Your task to perform on an android device: open chrome and create a bookmark for the current page Image 0: 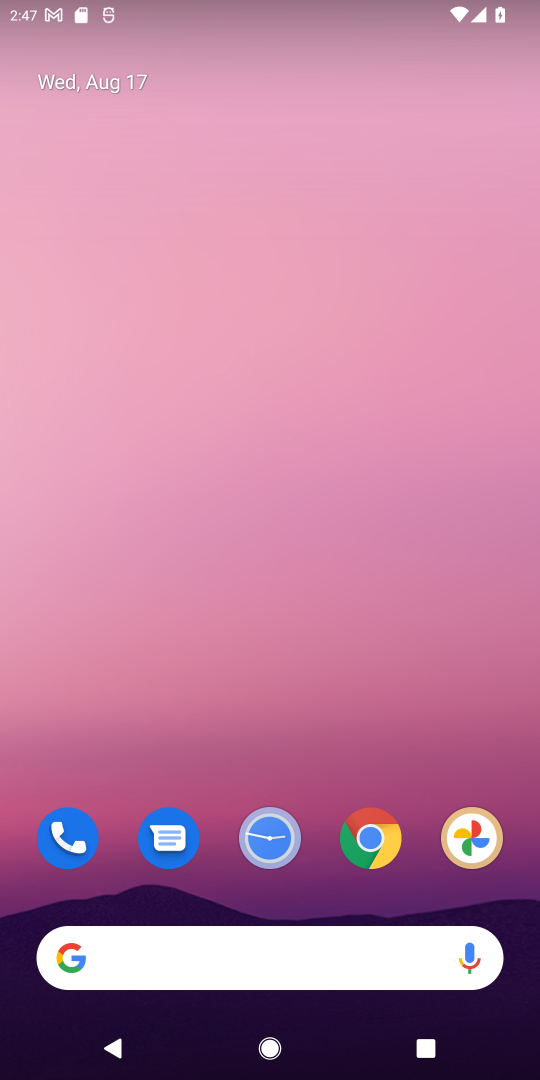
Step 0: click (357, 846)
Your task to perform on an android device: open chrome and create a bookmark for the current page Image 1: 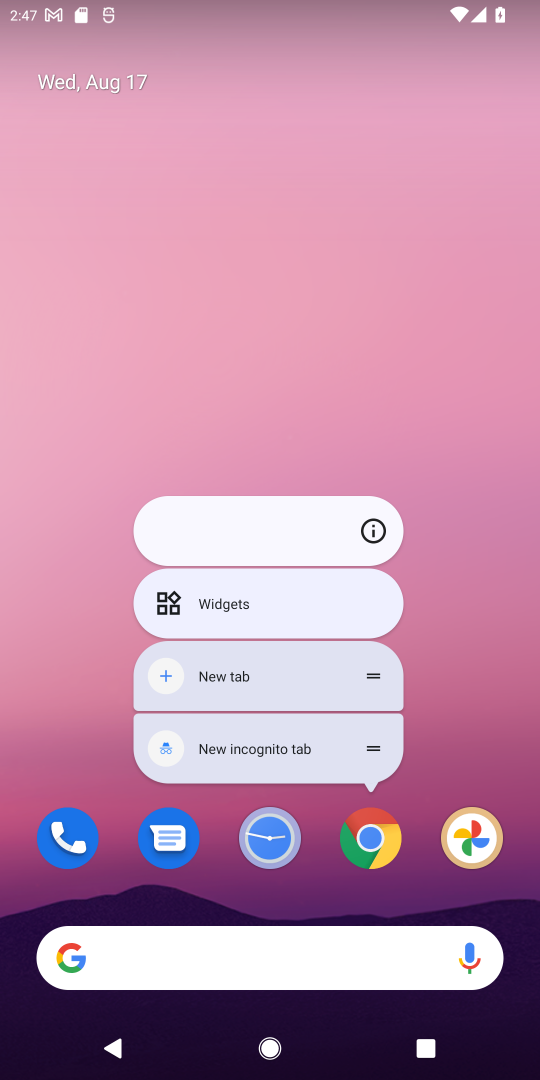
Step 1: click (395, 829)
Your task to perform on an android device: open chrome and create a bookmark for the current page Image 2: 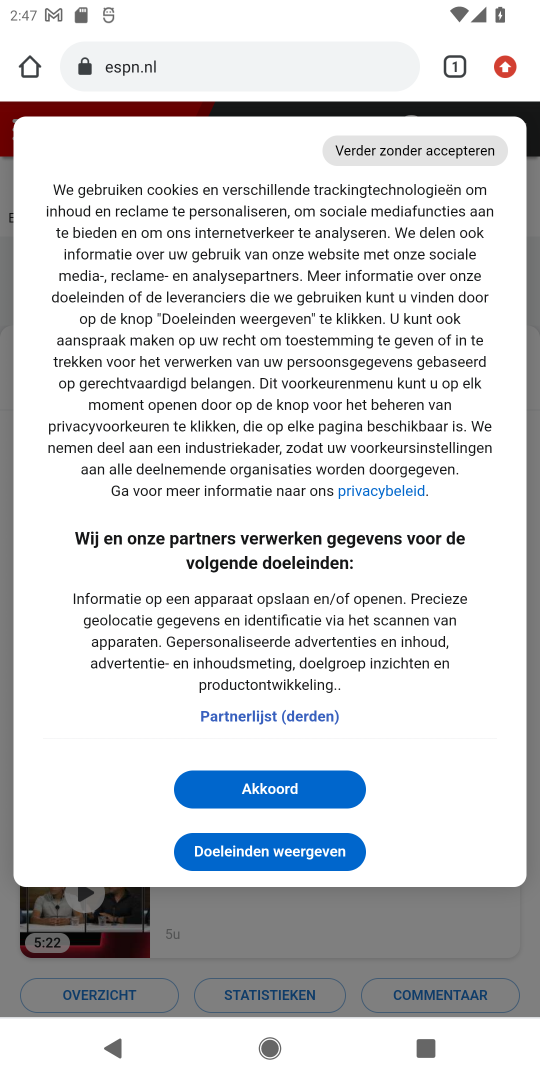
Step 2: click (499, 114)
Your task to perform on an android device: open chrome and create a bookmark for the current page Image 3: 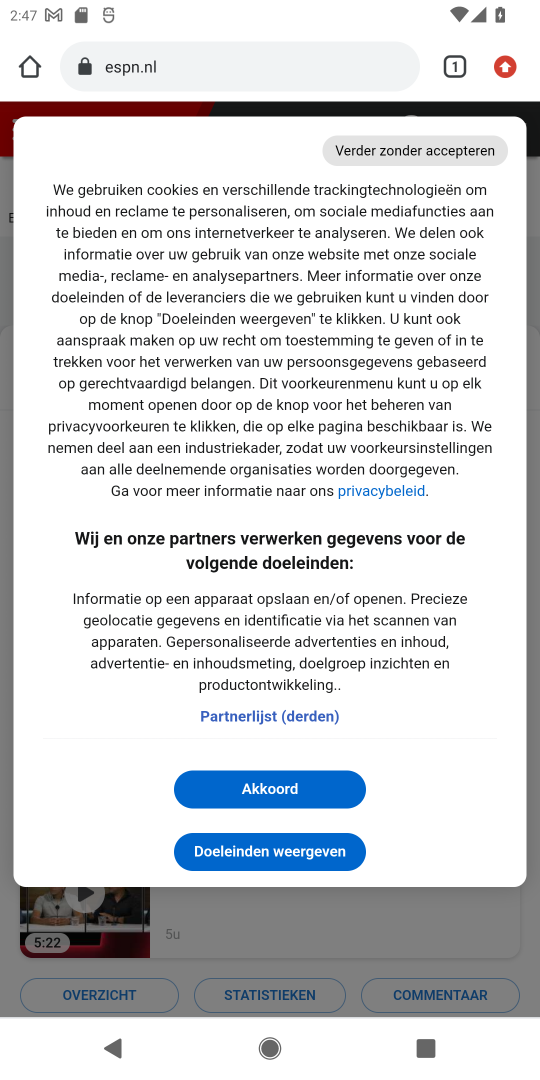
Step 3: click (507, 66)
Your task to perform on an android device: open chrome and create a bookmark for the current page Image 4: 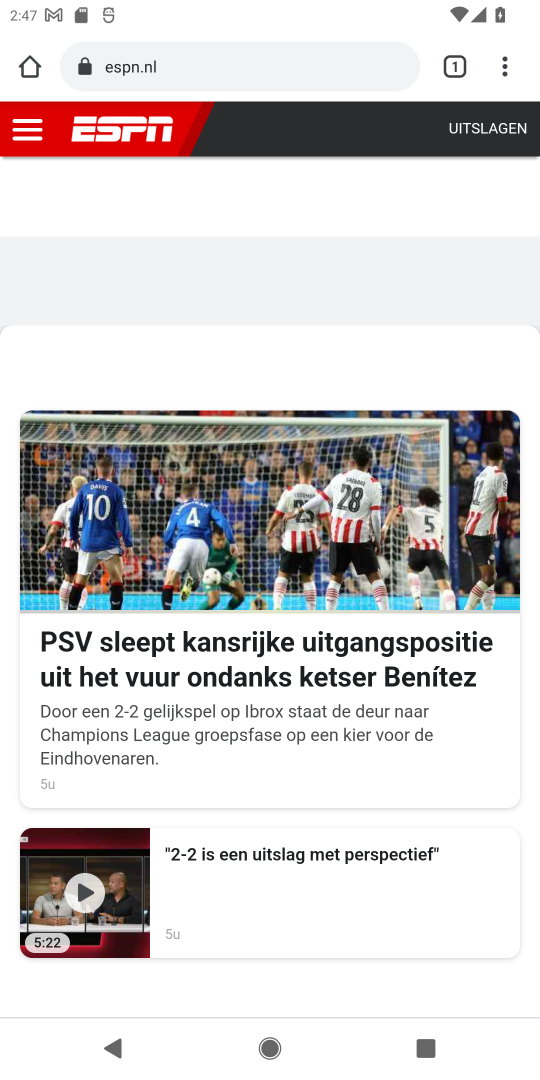
Step 4: click (504, 65)
Your task to perform on an android device: open chrome and create a bookmark for the current page Image 5: 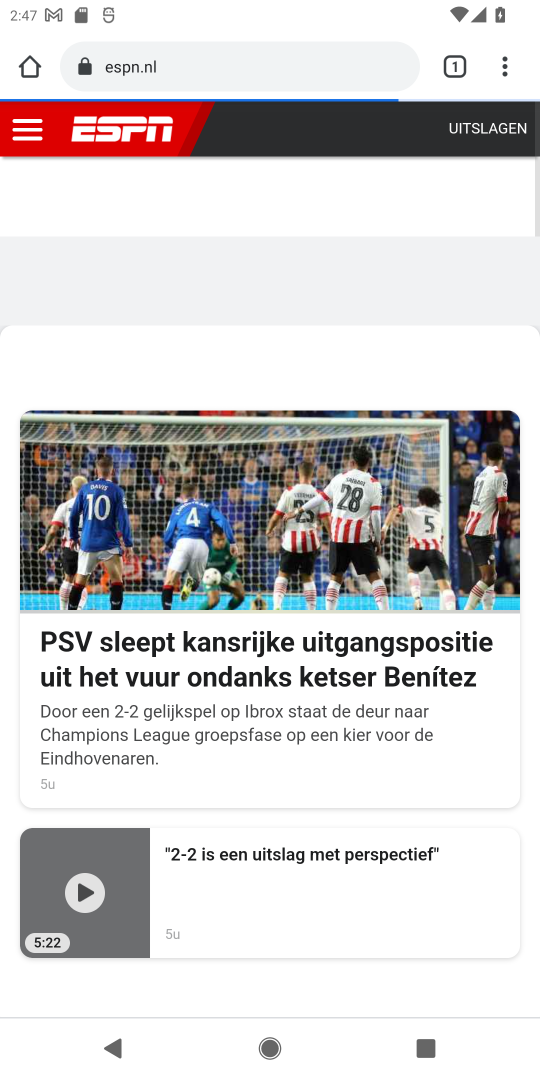
Step 5: click (502, 65)
Your task to perform on an android device: open chrome and create a bookmark for the current page Image 6: 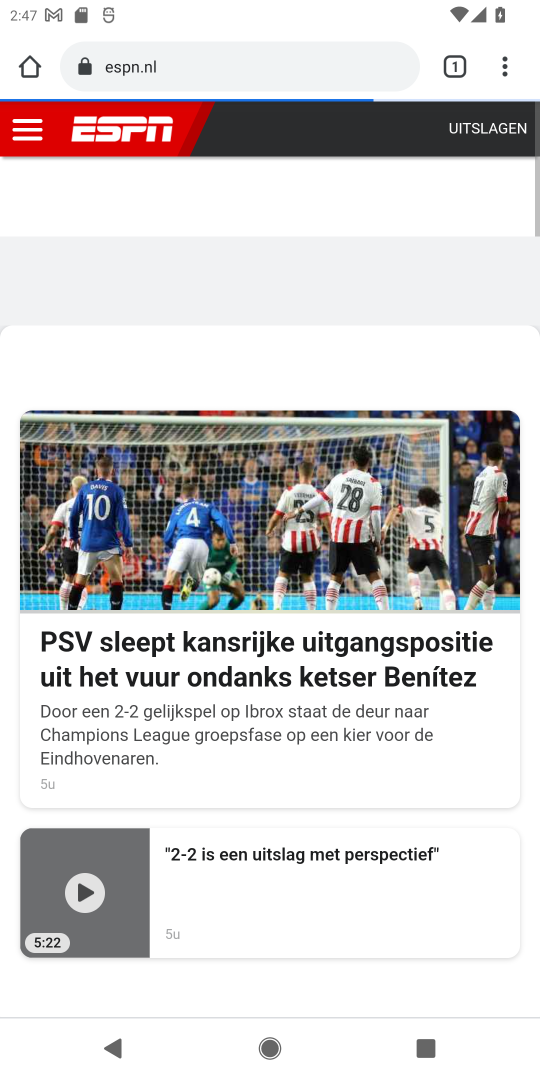
Step 6: click (499, 61)
Your task to perform on an android device: open chrome and create a bookmark for the current page Image 7: 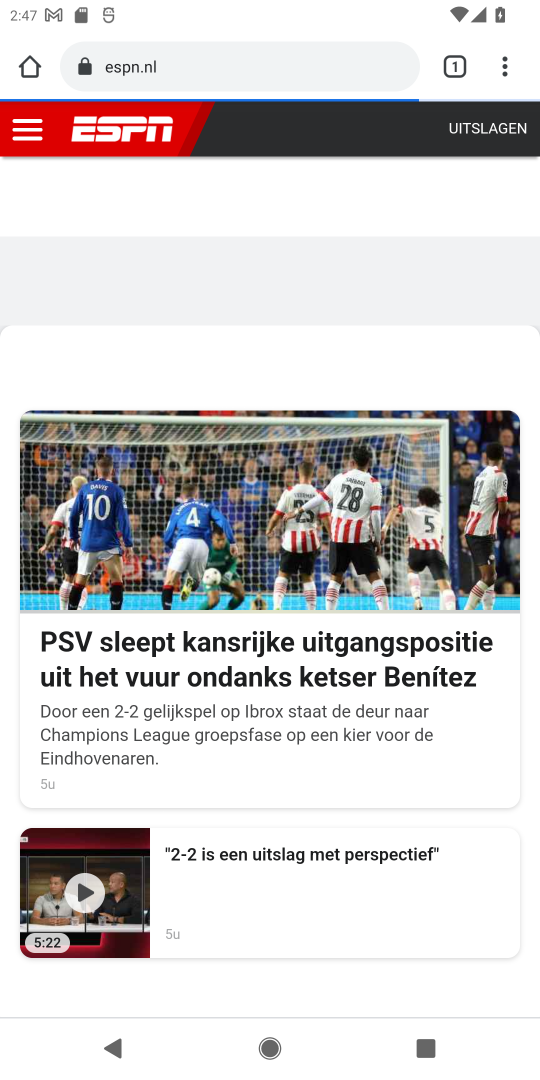
Step 7: click (499, 69)
Your task to perform on an android device: open chrome and create a bookmark for the current page Image 8: 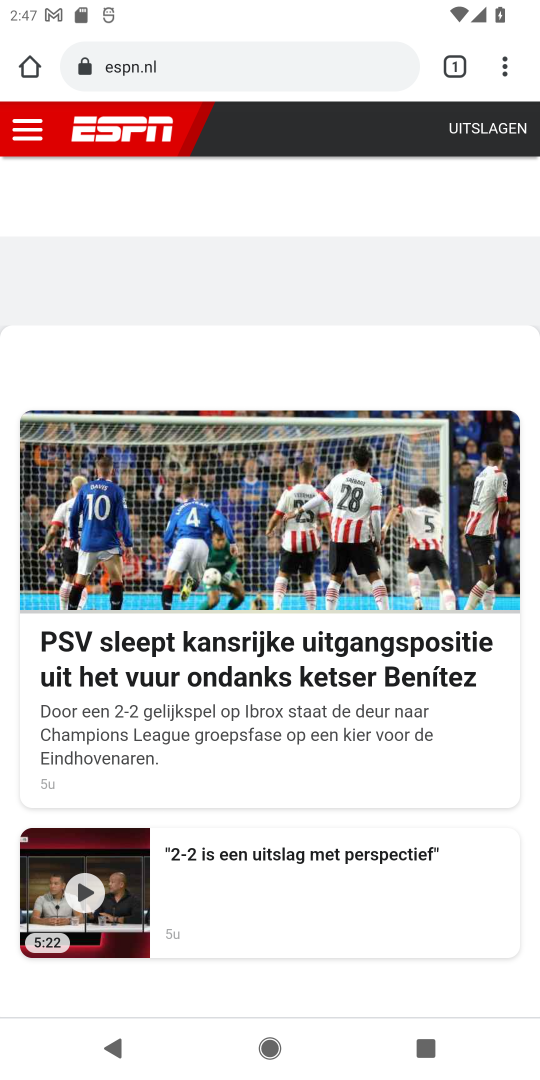
Step 8: click (499, 69)
Your task to perform on an android device: open chrome and create a bookmark for the current page Image 9: 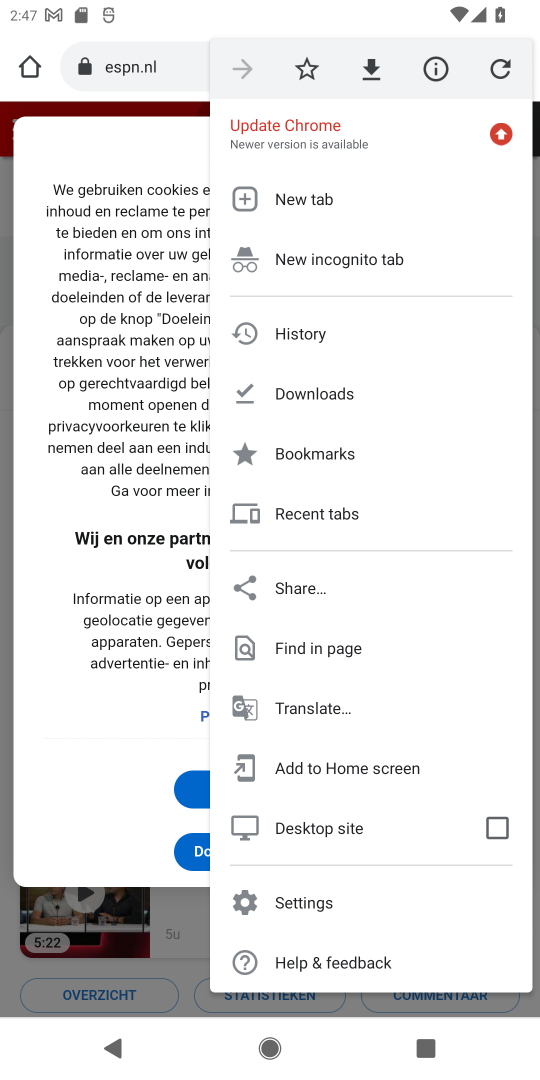
Step 9: click (295, 67)
Your task to perform on an android device: open chrome and create a bookmark for the current page Image 10: 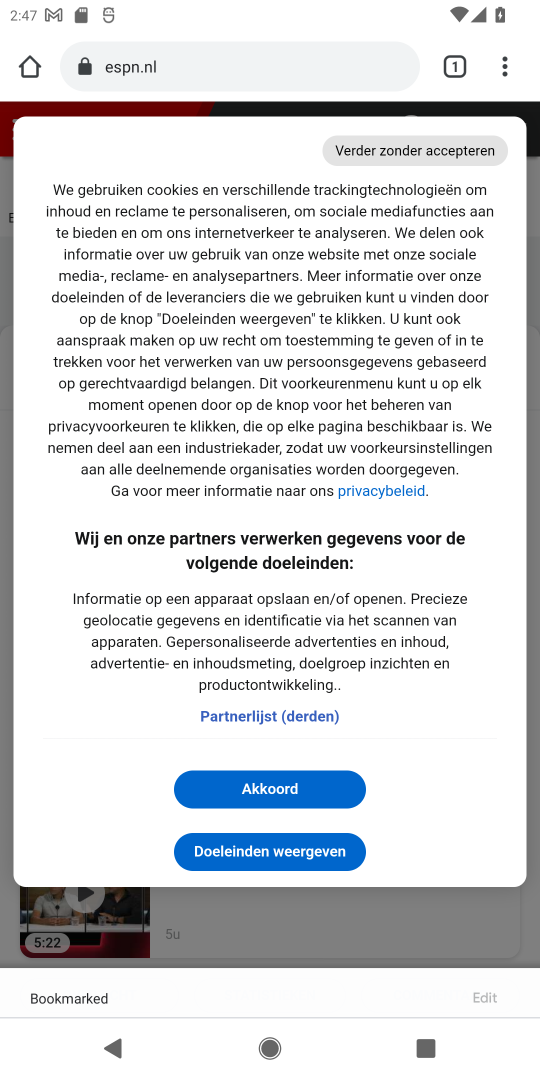
Step 10: task complete